Your task to perform on an android device: Open the calendar app, open the side menu, and click the "Day" option Image 0: 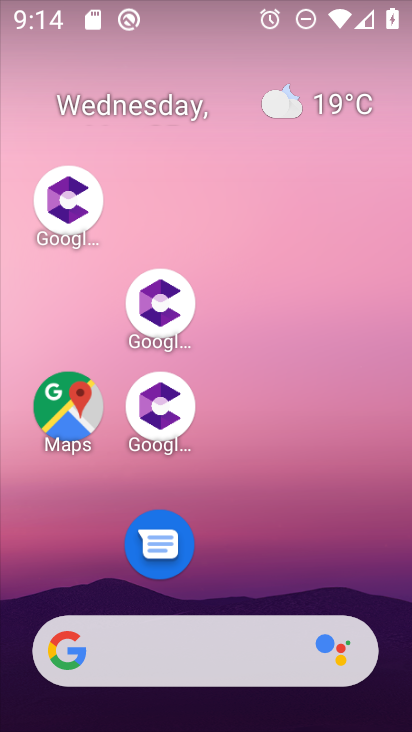
Step 0: drag from (323, 539) to (239, 83)
Your task to perform on an android device: Open the calendar app, open the side menu, and click the "Day" option Image 1: 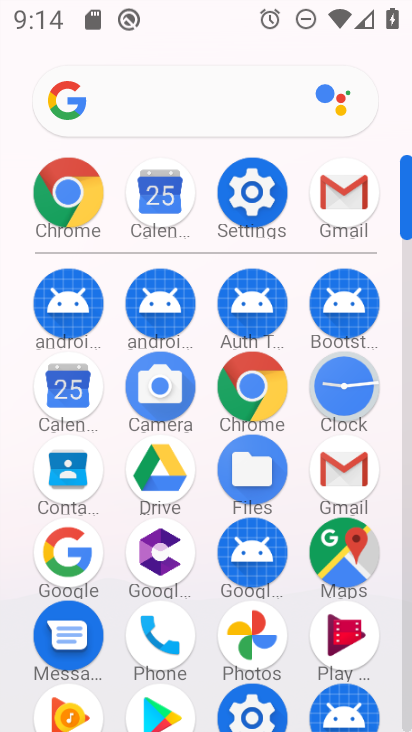
Step 1: click (61, 381)
Your task to perform on an android device: Open the calendar app, open the side menu, and click the "Day" option Image 2: 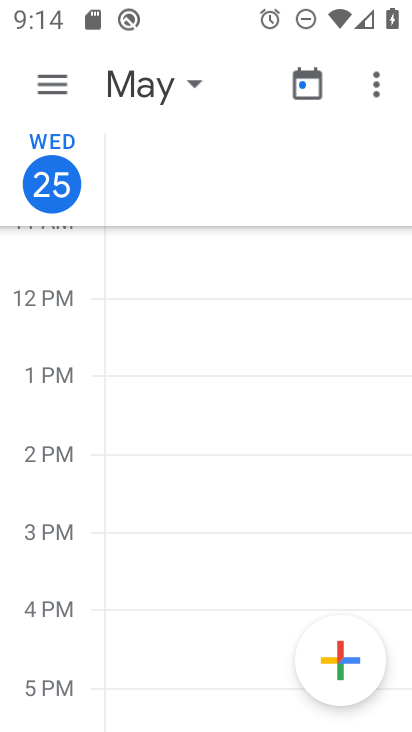
Step 2: click (50, 85)
Your task to perform on an android device: Open the calendar app, open the side menu, and click the "Day" option Image 3: 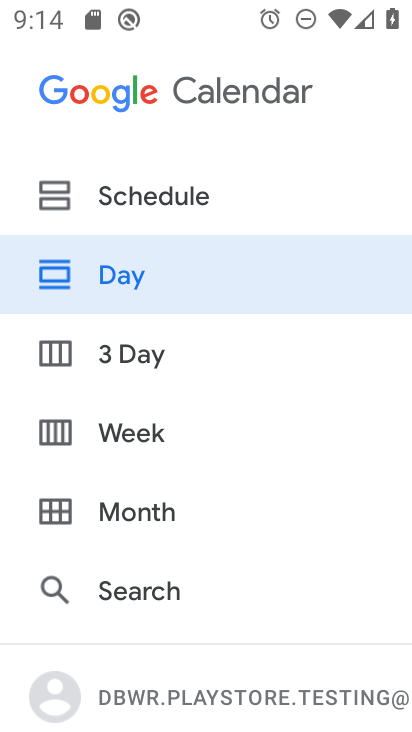
Step 3: click (104, 273)
Your task to perform on an android device: Open the calendar app, open the side menu, and click the "Day" option Image 4: 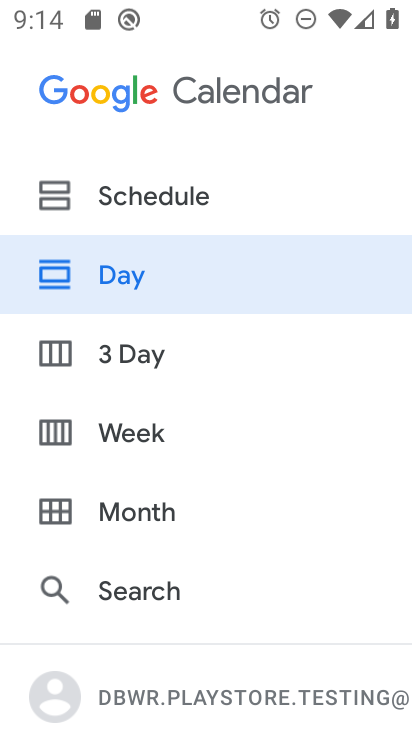
Step 4: click (277, 266)
Your task to perform on an android device: Open the calendar app, open the side menu, and click the "Day" option Image 5: 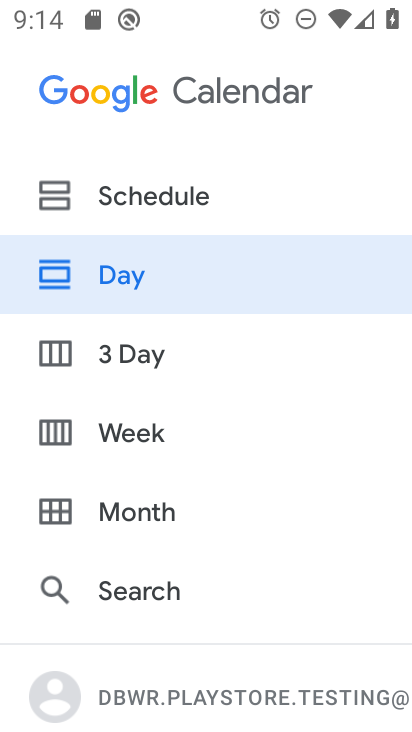
Step 5: task complete